Your task to perform on an android device: set the stopwatch Image 0: 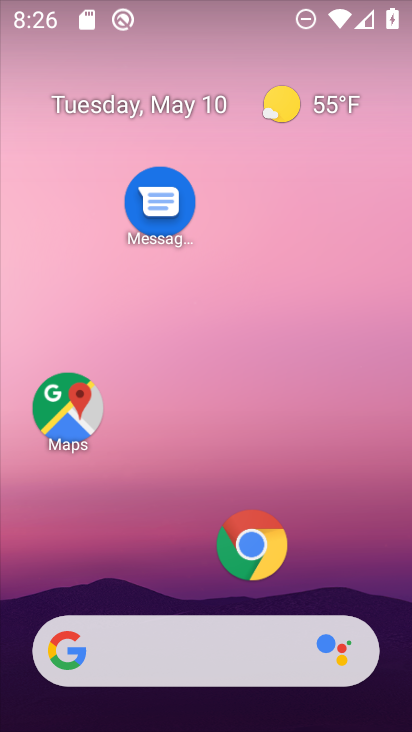
Step 0: drag from (163, 575) to (257, 139)
Your task to perform on an android device: set the stopwatch Image 1: 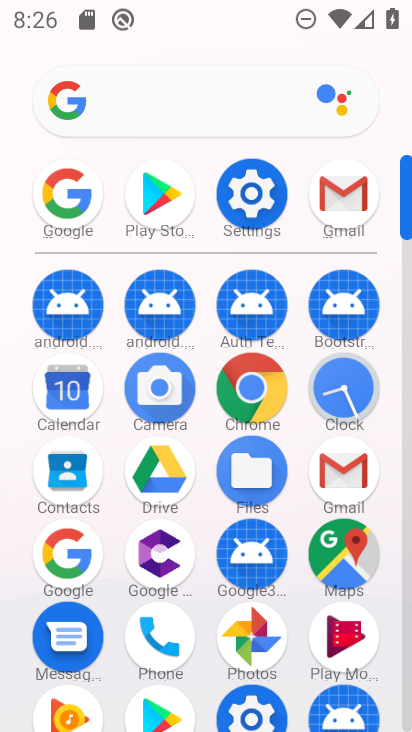
Step 1: click (328, 387)
Your task to perform on an android device: set the stopwatch Image 2: 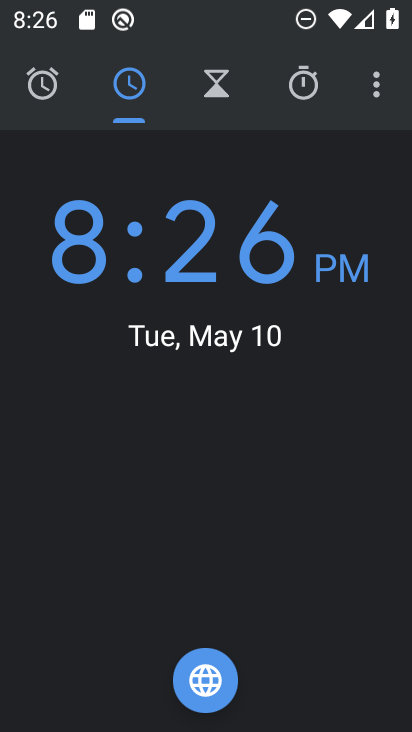
Step 2: click (311, 75)
Your task to perform on an android device: set the stopwatch Image 3: 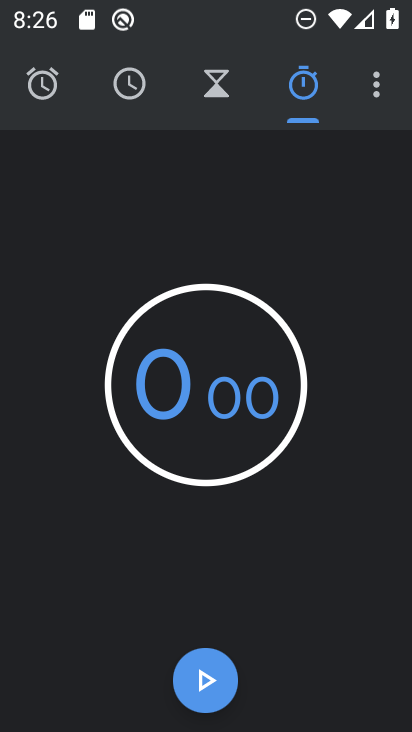
Step 3: click (193, 696)
Your task to perform on an android device: set the stopwatch Image 4: 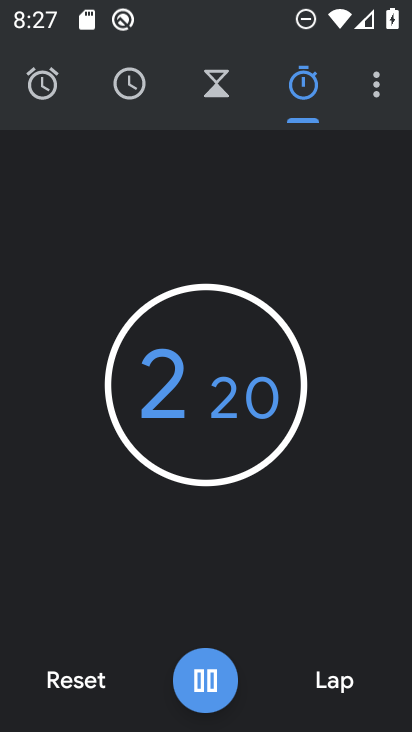
Step 4: task complete